Your task to perform on an android device: Go to display settings Image 0: 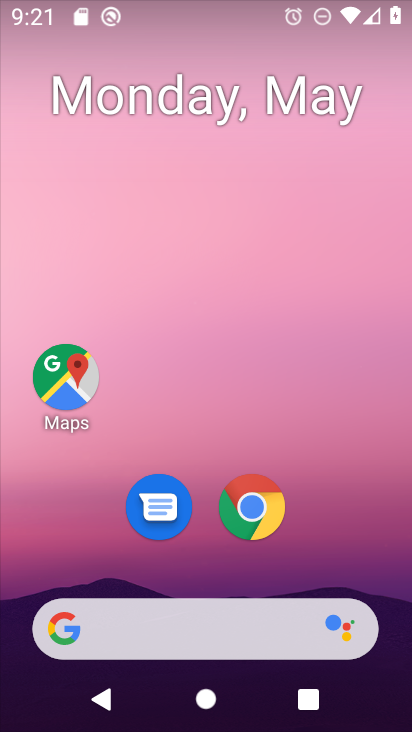
Step 0: drag from (204, 567) to (308, 81)
Your task to perform on an android device: Go to display settings Image 1: 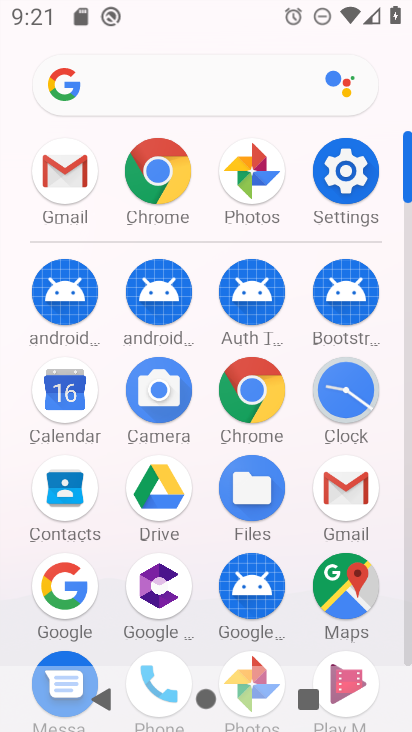
Step 1: drag from (213, 540) to (285, 236)
Your task to perform on an android device: Go to display settings Image 2: 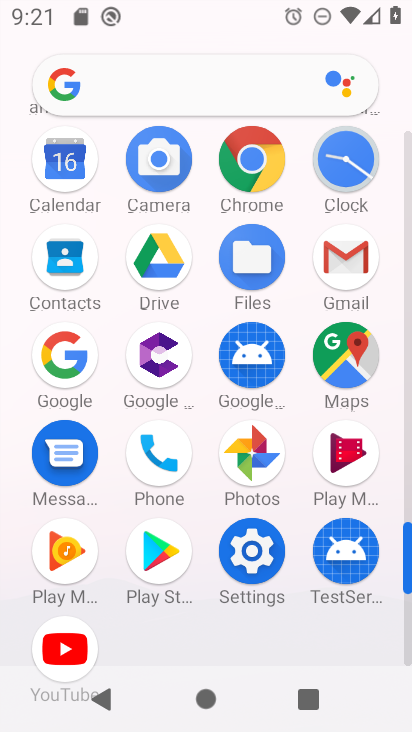
Step 2: click (261, 573)
Your task to perform on an android device: Go to display settings Image 3: 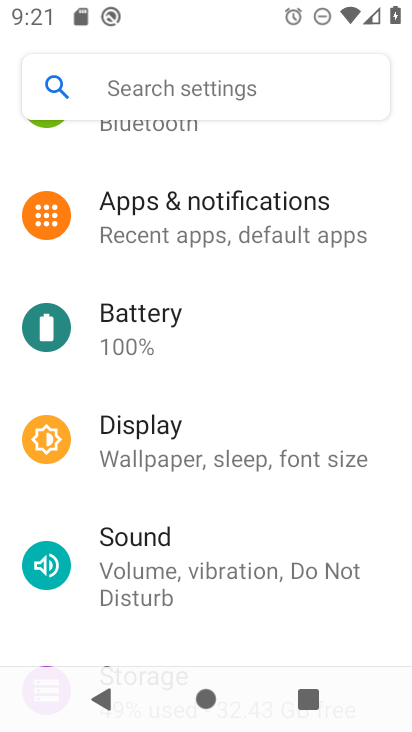
Step 3: click (187, 453)
Your task to perform on an android device: Go to display settings Image 4: 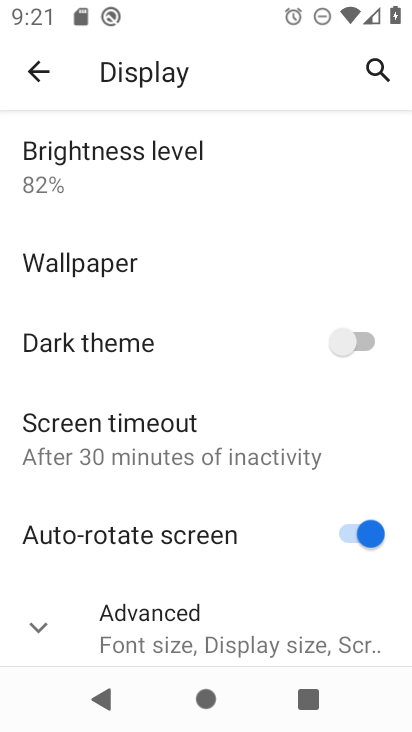
Step 4: task complete